Your task to perform on an android device: Open the Play Movies app and select the watchlist tab. Image 0: 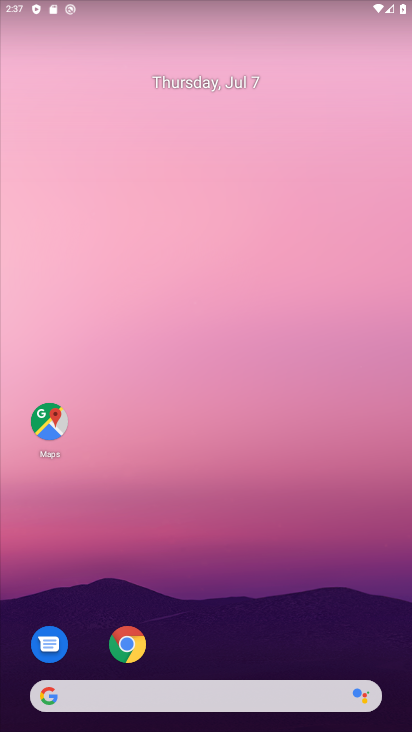
Step 0: drag from (218, 395) to (210, 337)
Your task to perform on an android device: Open the Play Movies app and select the watchlist tab. Image 1: 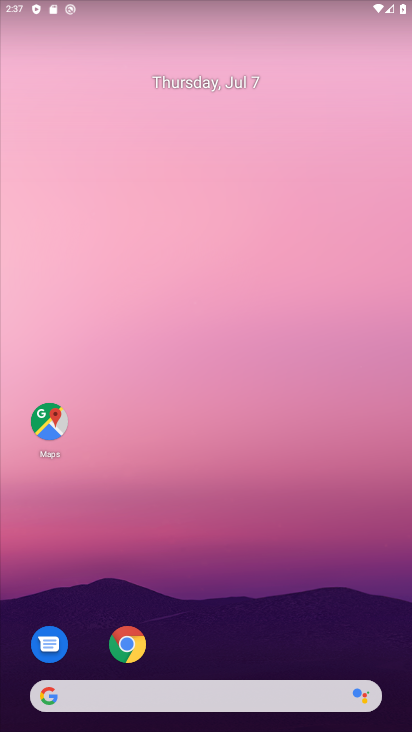
Step 1: drag from (210, 395) to (183, 162)
Your task to perform on an android device: Open the Play Movies app and select the watchlist tab. Image 2: 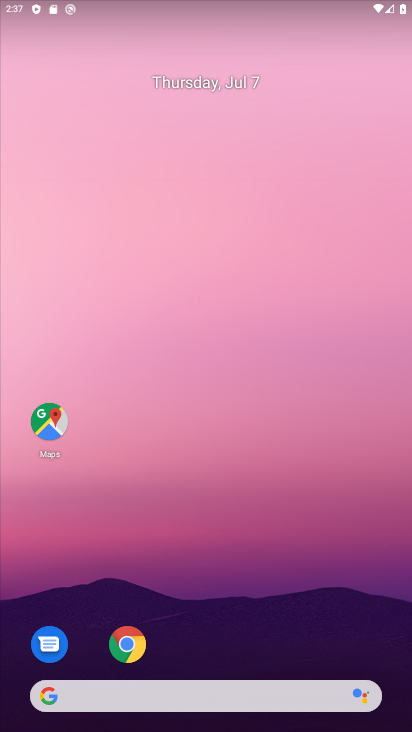
Step 2: drag from (269, 548) to (214, 151)
Your task to perform on an android device: Open the Play Movies app and select the watchlist tab. Image 3: 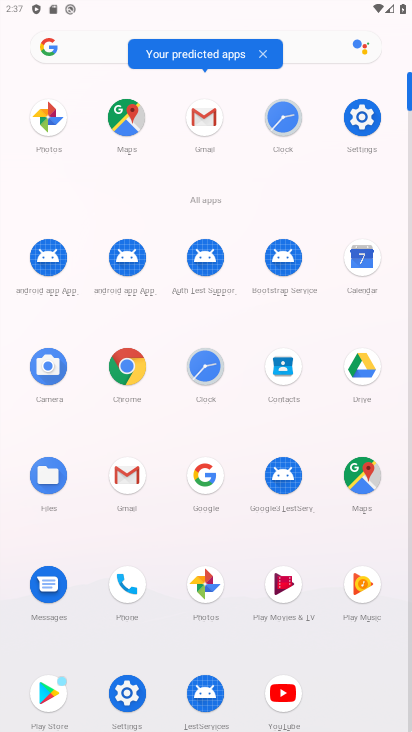
Step 3: click (279, 687)
Your task to perform on an android device: Open the Play Movies app and select the watchlist tab. Image 4: 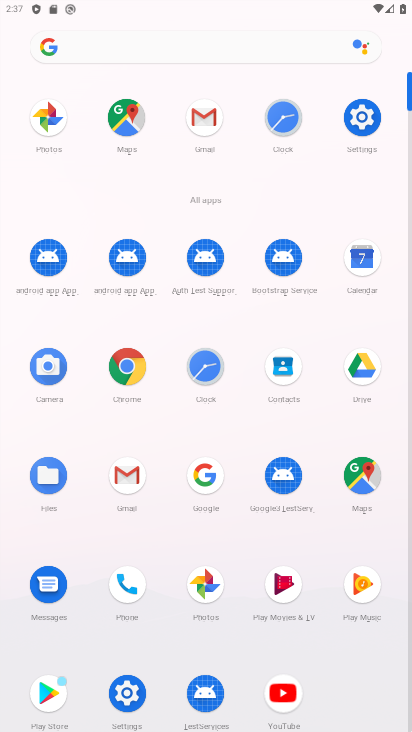
Step 4: click (279, 692)
Your task to perform on an android device: Open the Play Movies app and select the watchlist tab. Image 5: 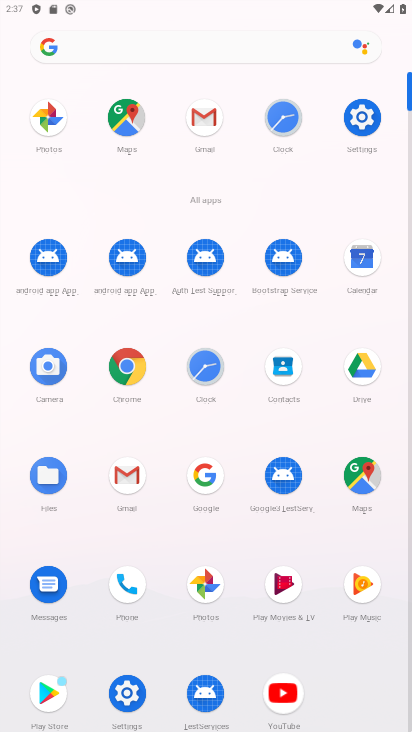
Step 5: click (282, 694)
Your task to perform on an android device: Open the Play Movies app and select the watchlist tab. Image 6: 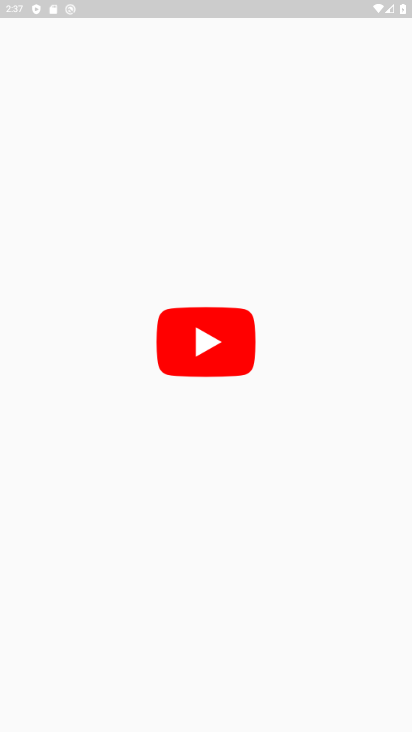
Step 6: click (284, 695)
Your task to perform on an android device: Open the Play Movies app and select the watchlist tab. Image 7: 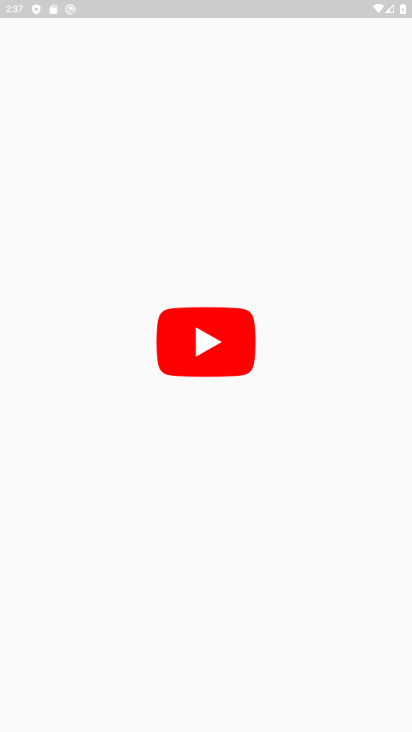
Step 7: click (200, 341)
Your task to perform on an android device: Open the Play Movies app and select the watchlist tab. Image 8: 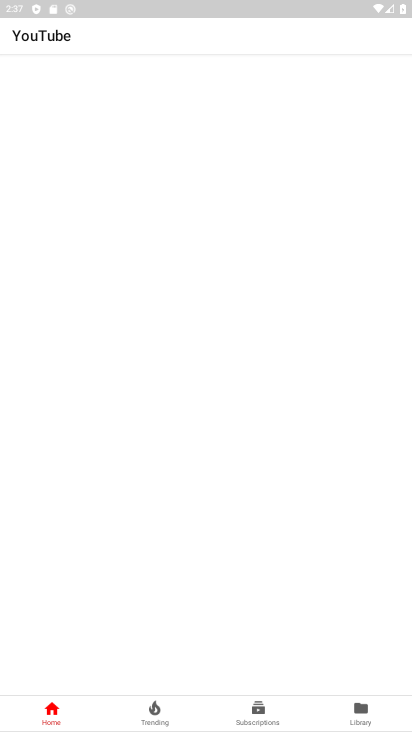
Step 8: click (200, 341)
Your task to perform on an android device: Open the Play Movies app and select the watchlist tab. Image 9: 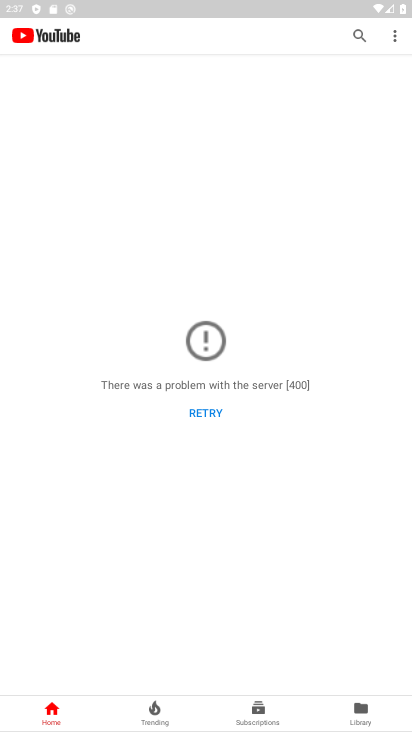
Step 9: click (205, 410)
Your task to perform on an android device: Open the Play Movies app and select the watchlist tab. Image 10: 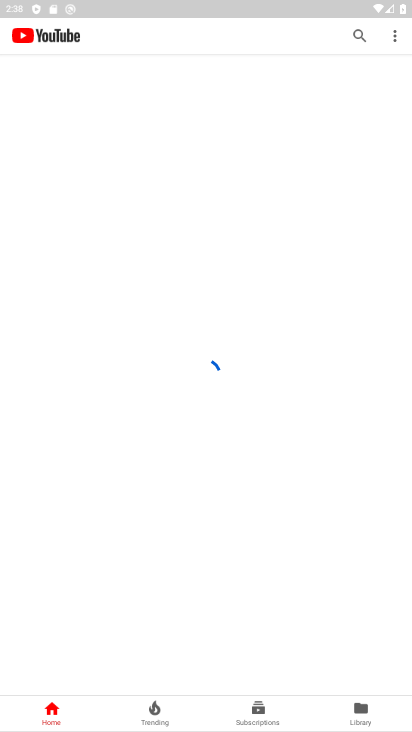
Step 10: click (202, 410)
Your task to perform on an android device: Open the Play Movies app and select the watchlist tab. Image 11: 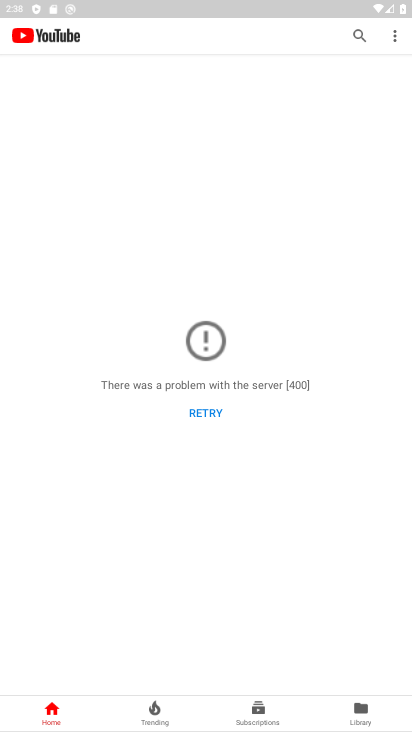
Step 11: click (202, 412)
Your task to perform on an android device: Open the Play Movies app and select the watchlist tab. Image 12: 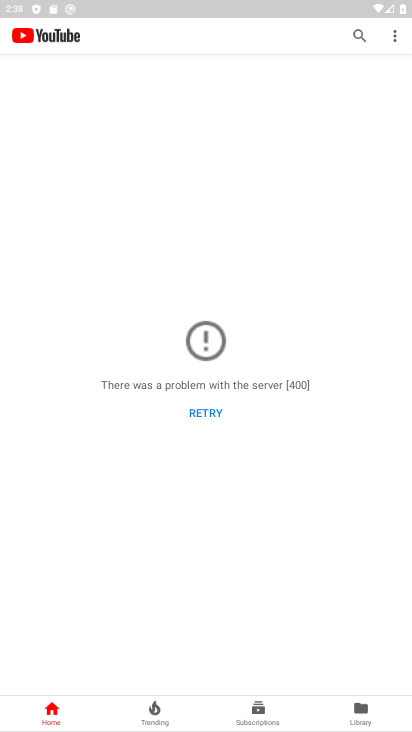
Step 12: click (202, 412)
Your task to perform on an android device: Open the Play Movies app and select the watchlist tab. Image 13: 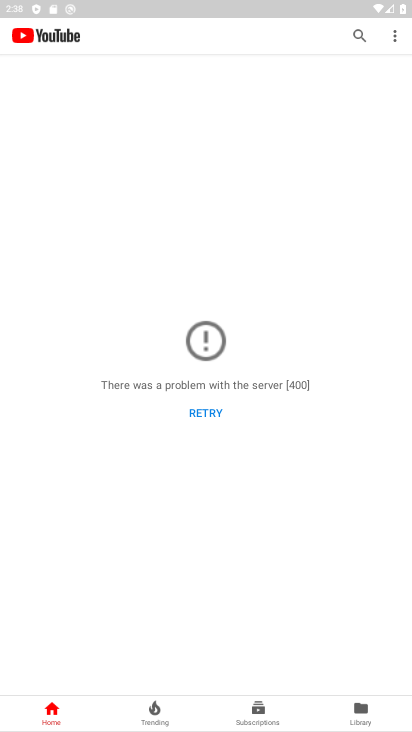
Step 13: click (202, 412)
Your task to perform on an android device: Open the Play Movies app and select the watchlist tab. Image 14: 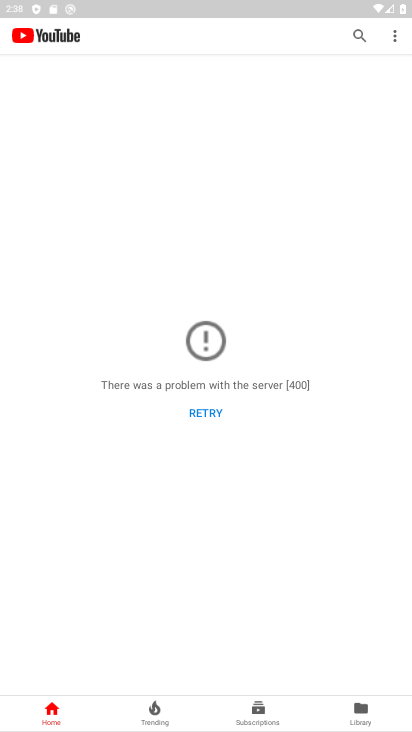
Step 14: click (202, 412)
Your task to perform on an android device: Open the Play Movies app and select the watchlist tab. Image 15: 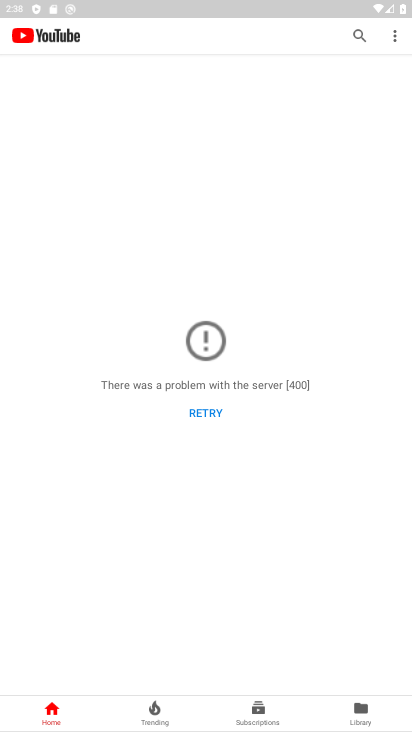
Step 15: press back button
Your task to perform on an android device: Open the Play Movies app and select the watchlist tab. Image 16: 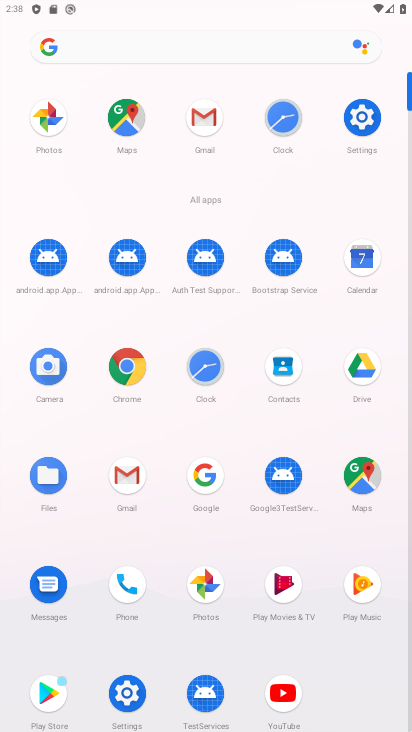
Step 16: click (277, 583)
Your task to perform on an android device: Open the Play Movies app and select the watchlist tab. Image 17: 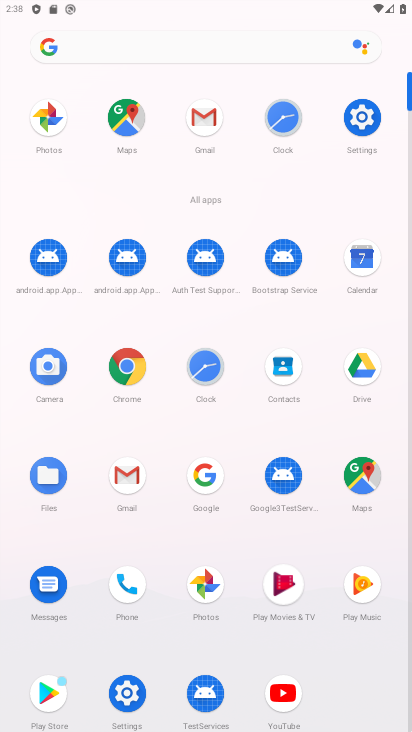
Step 17: click (281, 575)
Your task to perform on an android device: Open the Play Movies app and select the watchlist tab. Image 18: 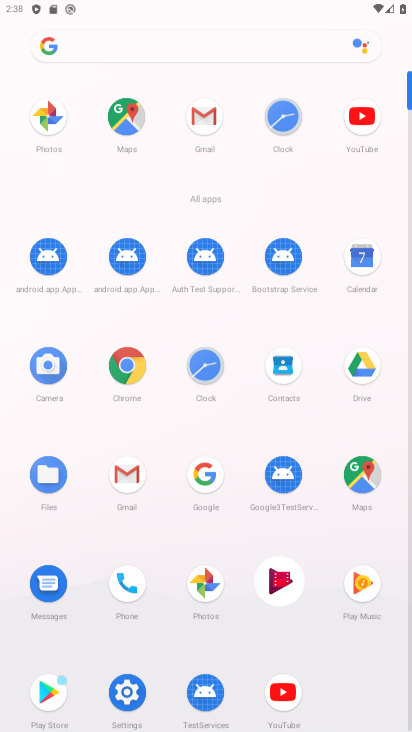
Step 18: click (283, 575)
Your task to perform on an android device: Open the Play Movies app and select the watchlist tab. Image 19: 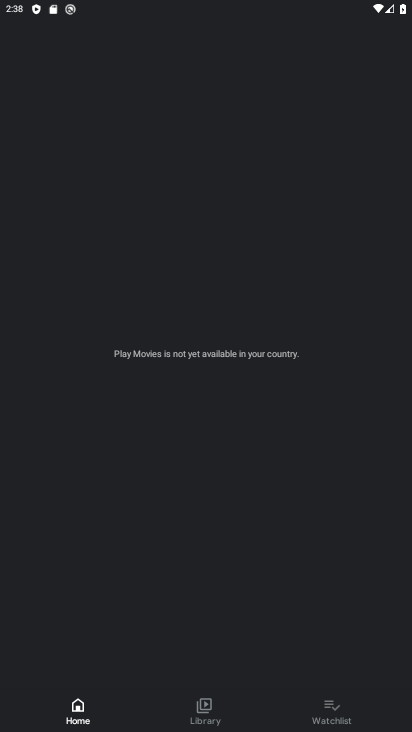
Step 19: click (360, 718)
Your task to perform on an android device: Open the Play Movies app and select the watchlist tab. Image 20: 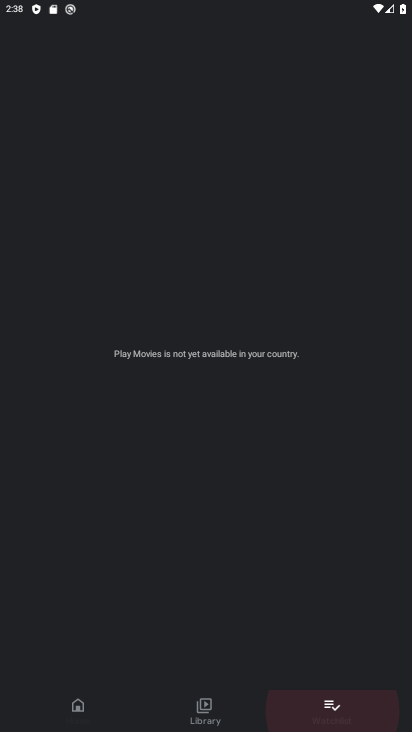
Step 20: click (359, 718)
Your task to perform on an android device: Open the Play Movies app and select the watchlist tab. Image 21: 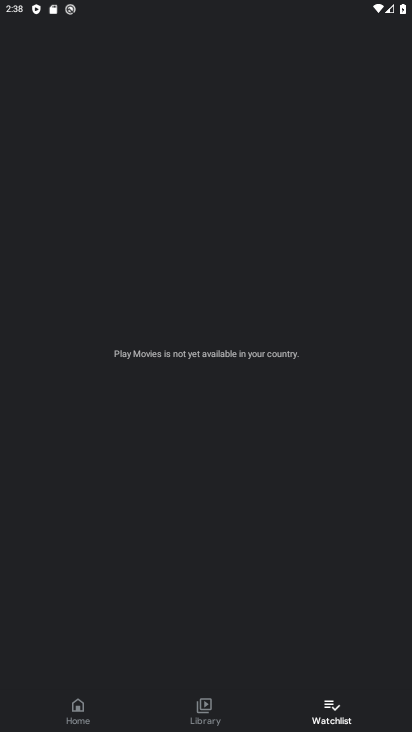
Step 21: click (359, 718)
Your task to perform on an android device: Open the Play Movies app and select the watchlist tab. Image 22: 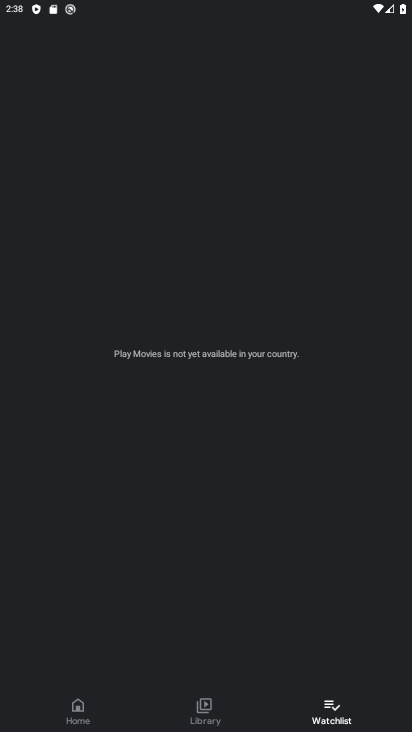
Step 22: task complete